Your task to perform on an android device: Go to wifi settings Image 0: 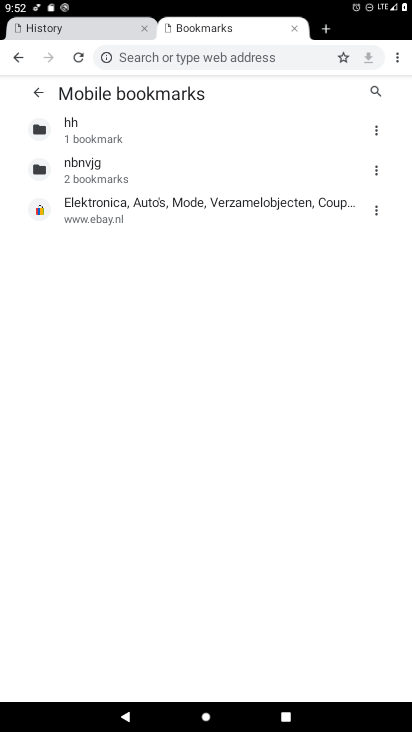
Step 0: press home button
Your task to perform on an android device: Go to wifi settings Image 1: 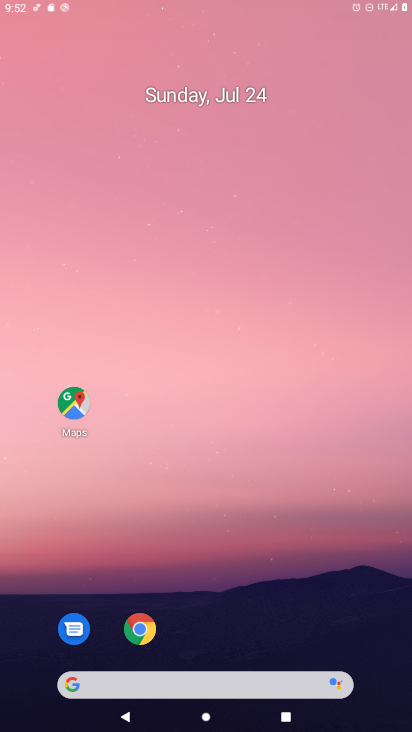
Step 1: drag from (380, 642) to (280, 31)
Your task to perform on an android device: Go to wifi settings Image 2: 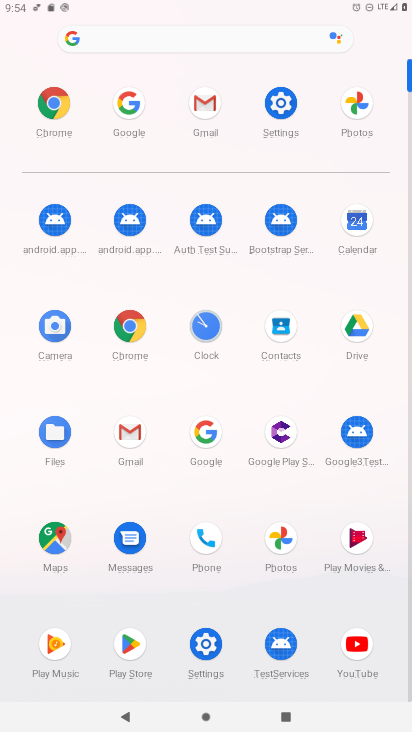
Step 2: click (202, 642)
Your task to perform on an android device: Go to wifi settings Image 3: 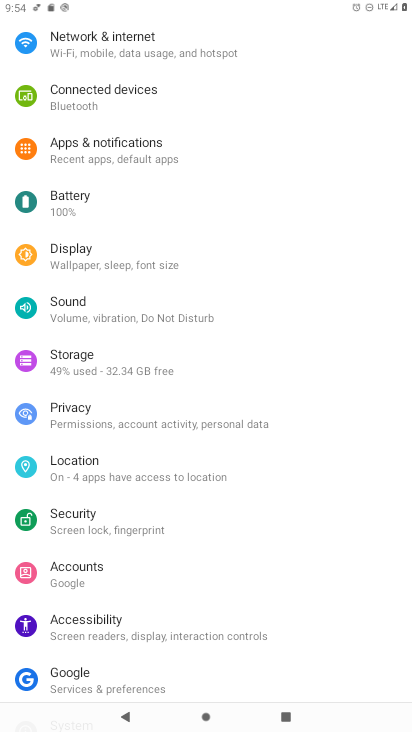
Step 3: click (150, 47)
Your task to perform on an android device: Go to wifi settings Image 4: 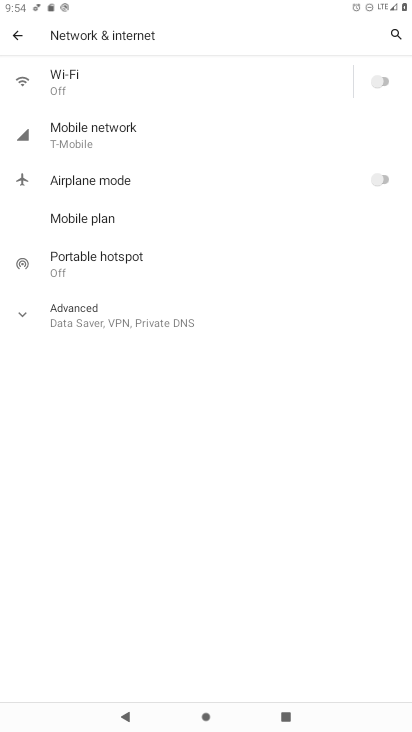
Step 4: click (92, 90)
Your task to perform on an android device: Go to wifi settings Image 5: 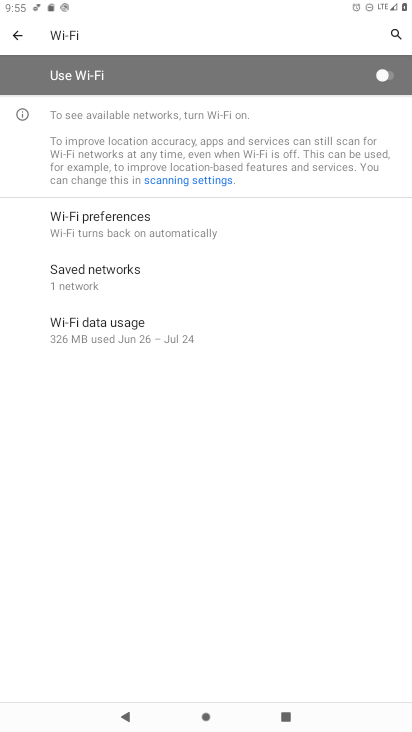
Step 5: task complete